Your task to perform on an android device: What is the recent news? Image 0: 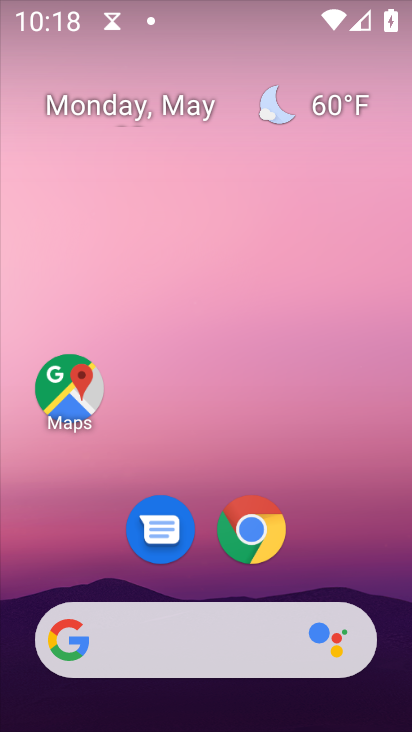
Step 0: drag from (293, 547) to (199, 175)
Your task to perform on an android device: What is the recent news? Image 1: 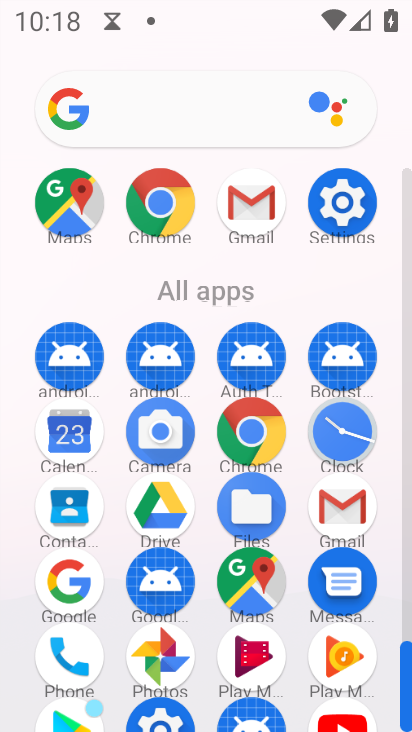
Step 1: click (78, 595)
Your task to perform on an android device: What is the recent news? Image 2: 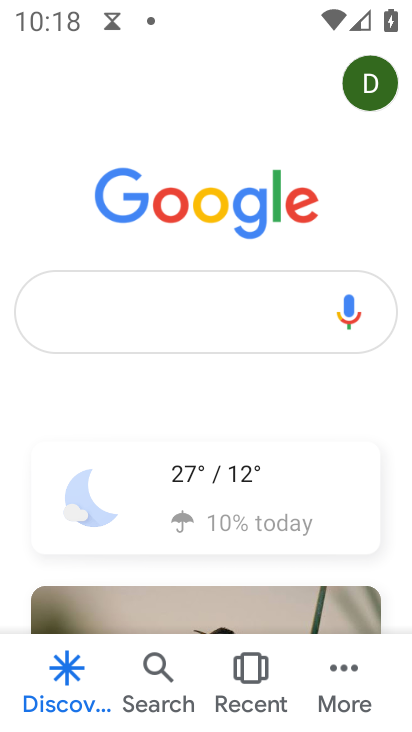
Step 2: click (178, 306)
Your task to perform on an android device: What is the recent news? Image 3: 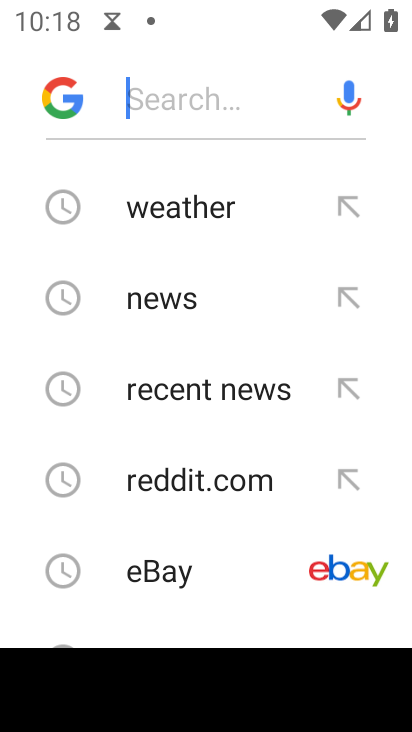
Step 3: click (185, 400)
Your task to perform on an android device: What is the recent news? Image 4: 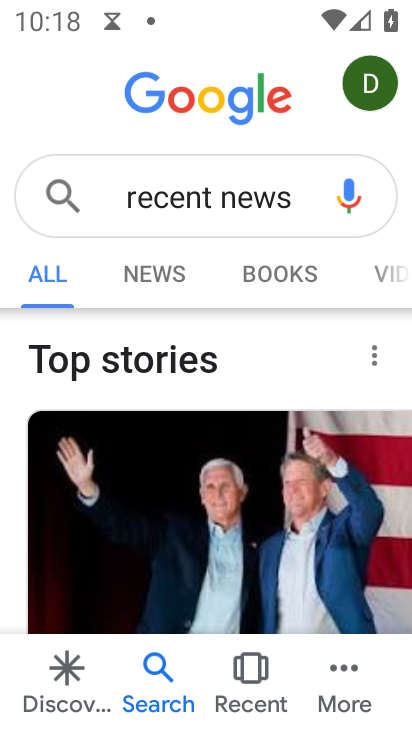
Step 4: task complete